Your task to perform on an android device: uninstall "Firefox Browser" Image 0: 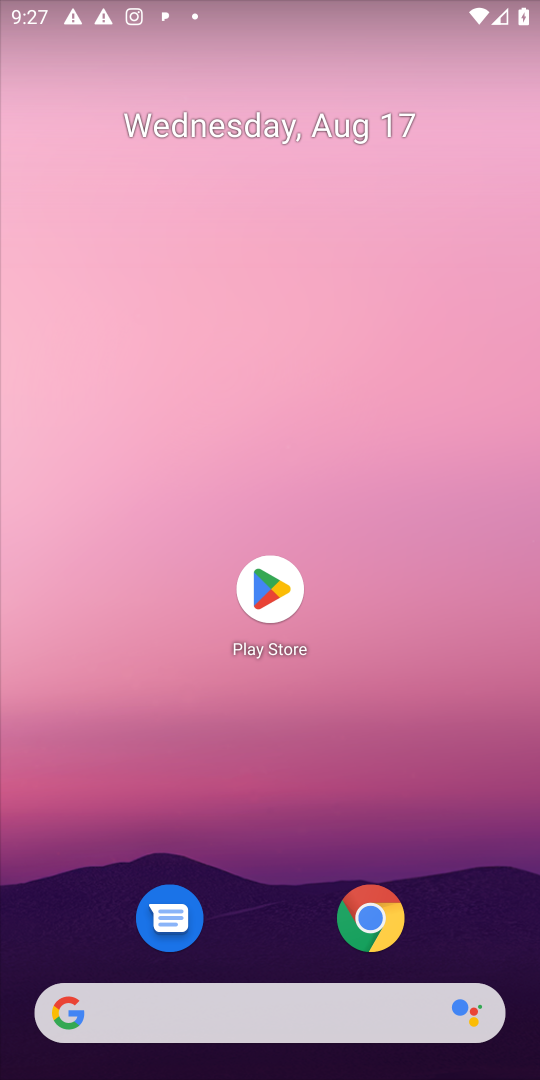
Step 0: click (273, 584)
Your task to perform on an android device: uninstall "Firefox Browser" Image 1: 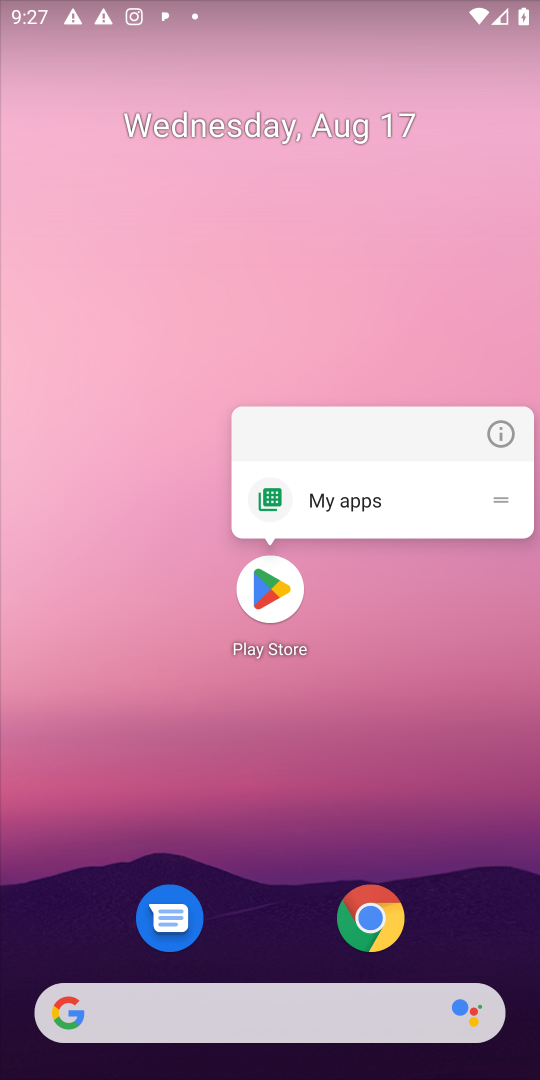
Step 1: click (260, 599)
Your task to perform on an android device: uninstall "Firefox Browser" Image 2: 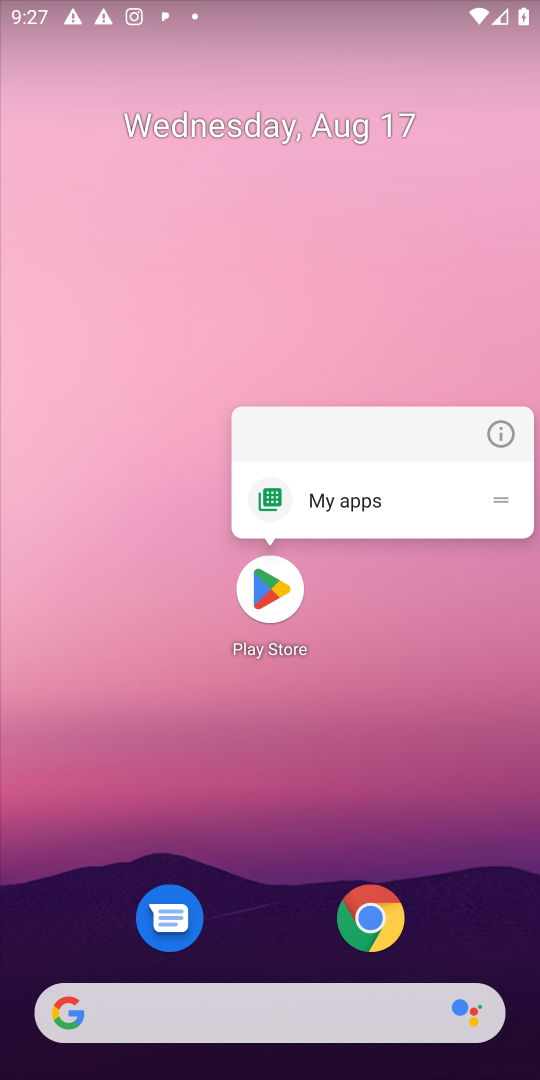
Step 2: click (260, 597)
Your task to perform on an android device: uninstall "Firefox Browser" Image 3: 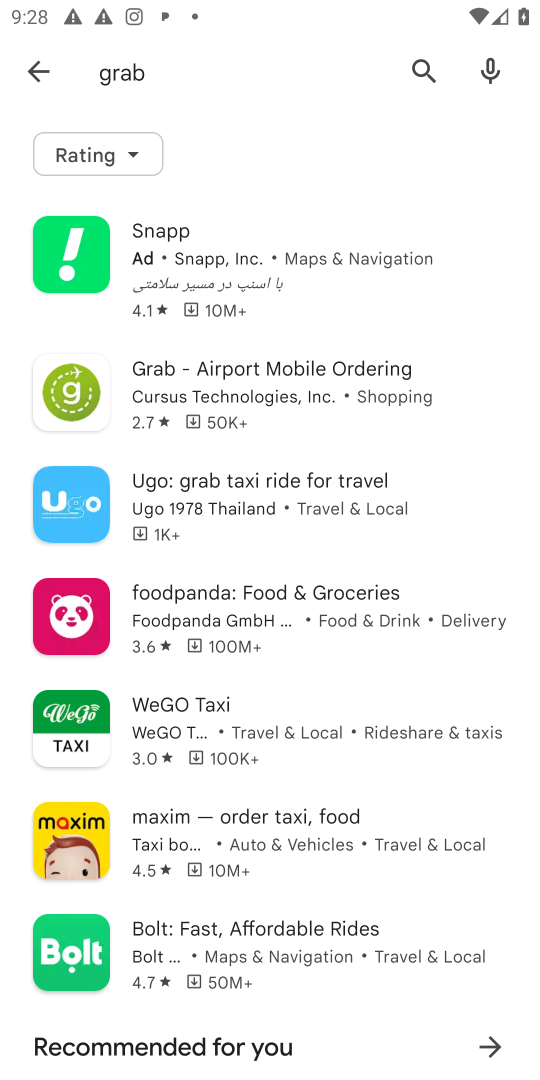
Step 3: click (421, 74)
Your task to perform on an android device: uninstall "Firefox Browser" Image 4: 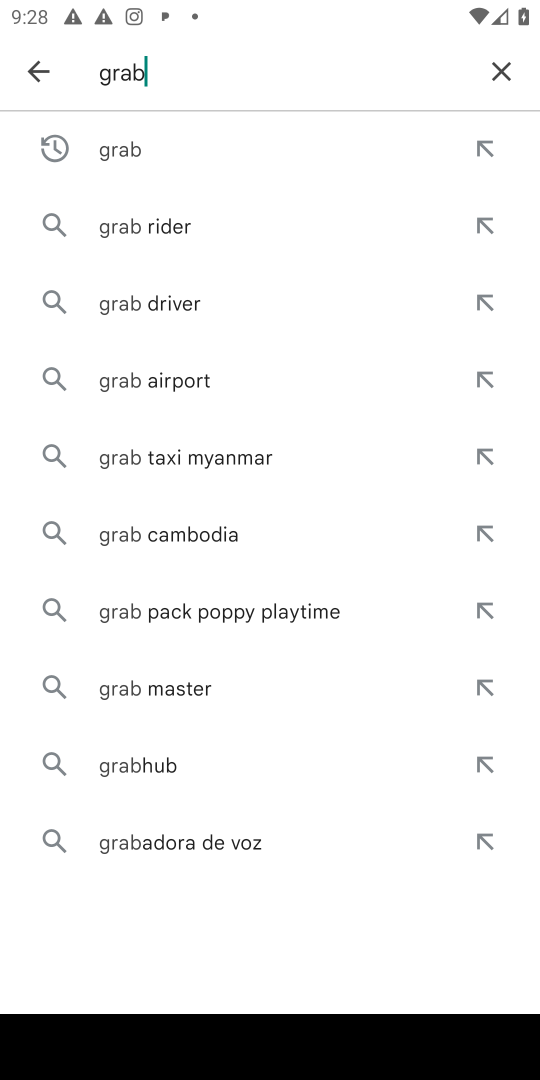
Step 4: click (490, 64)
Your task to perform on an android device: uninstall "Firefox Browser" Image 5: 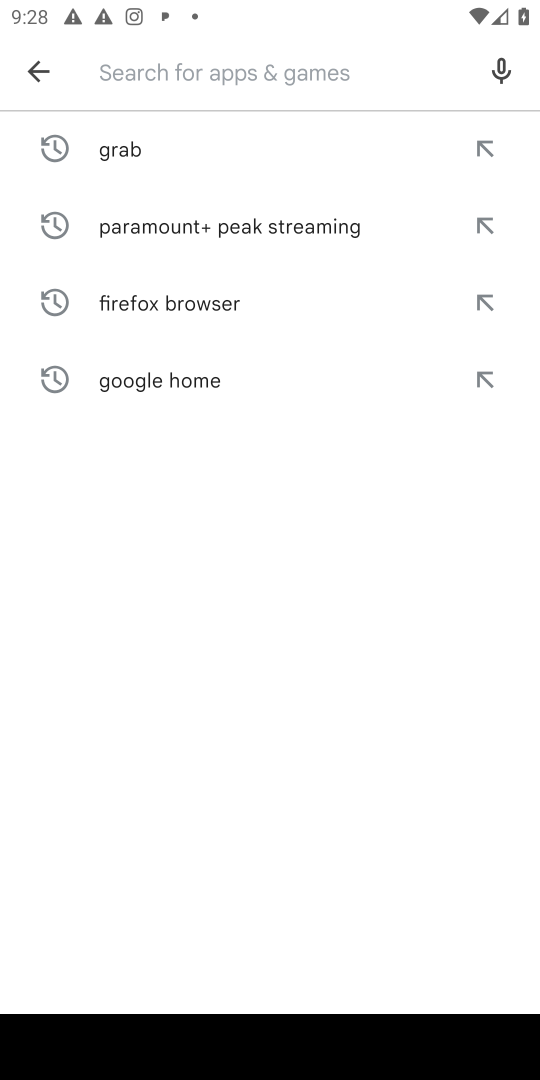
Step 5: type "Firefox Browser"
Your task to perform on an android device: uninstall "Firefox Browser" Image 6: 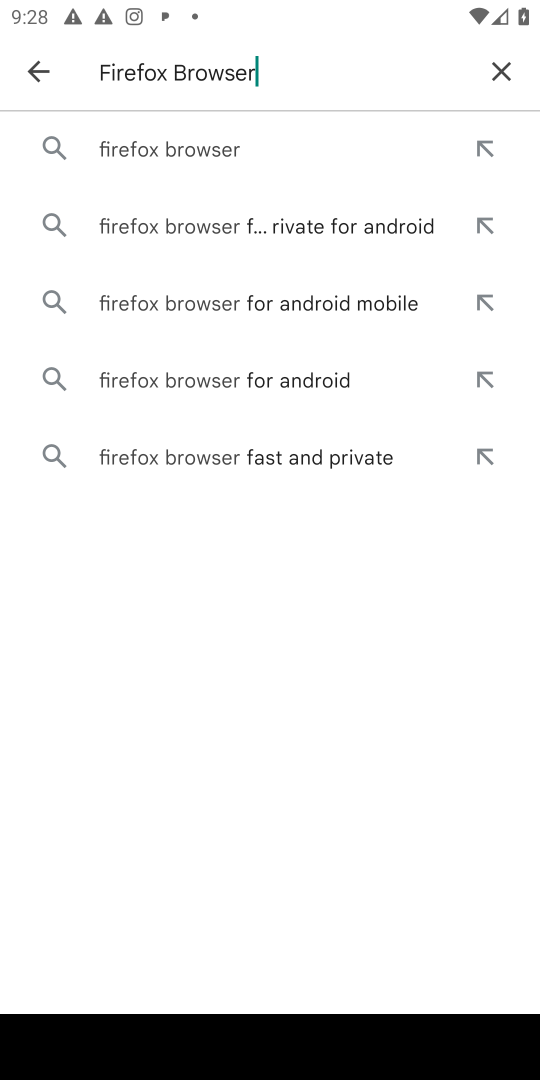
Step 6: click (174, 153)
Your task to perform on an android device: uninstall "Firefox Browser" Image 7: 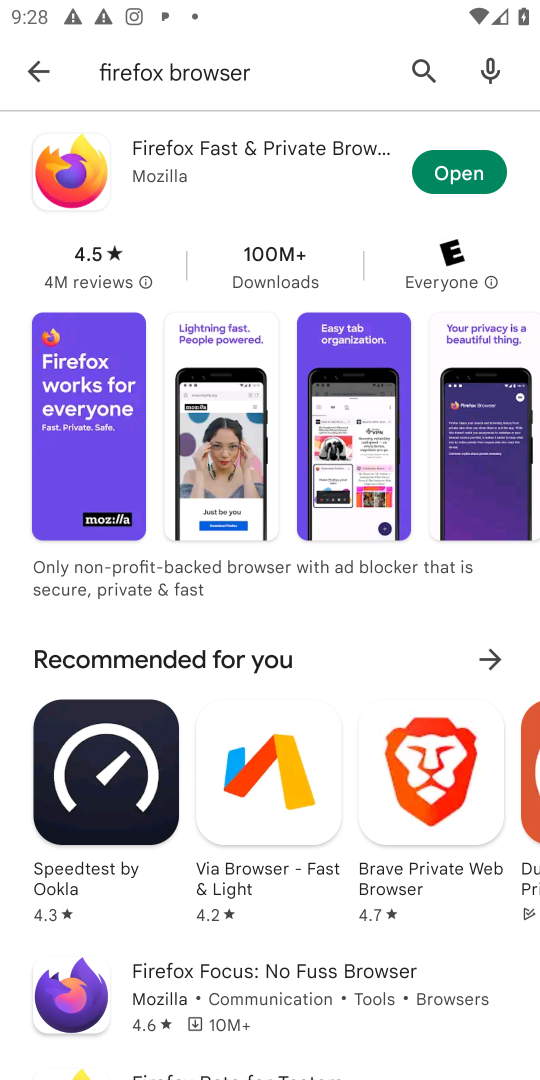
Step 7: click (151, 162)
Your task to perform on an android device: uninstall "Firefox Browser" Image 8: 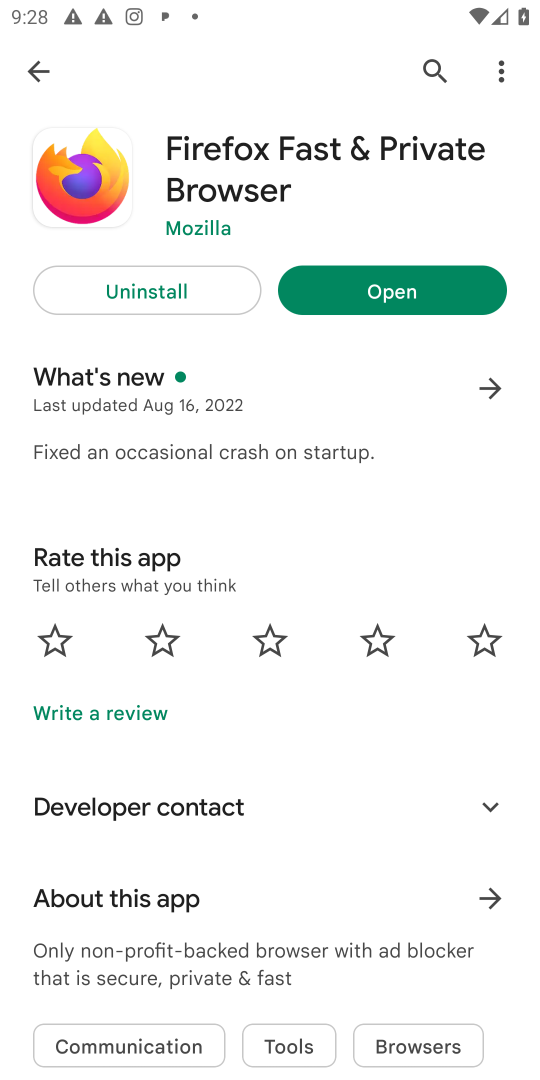
Step 8: click (162, 286)
Your task to perform on an android device: uninstall "Firefox Browser" Image 9: 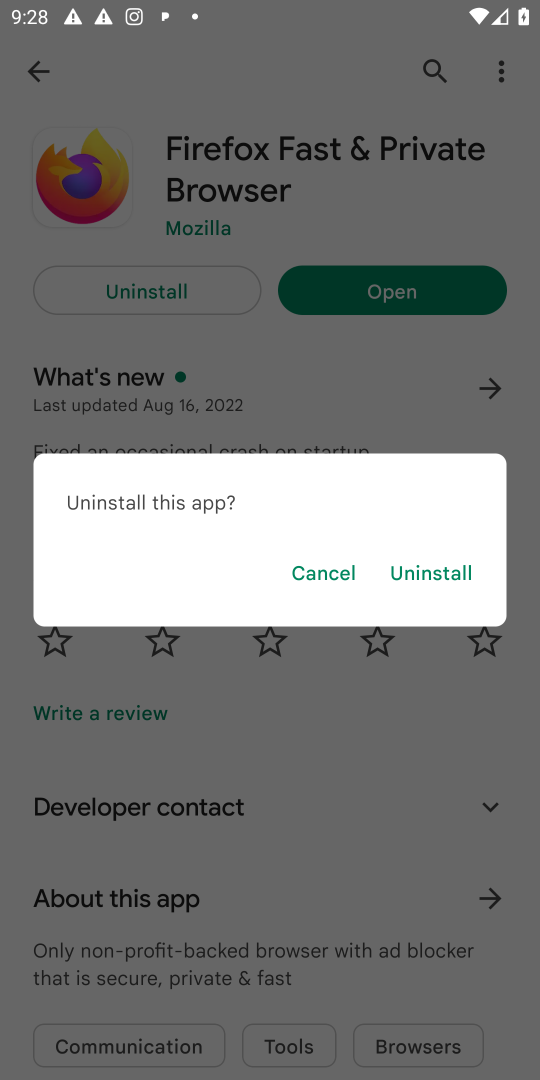
Step 9: click (439, 576)
Your task to perform on an android device: uninstall "Firefox Browser" Image 10: 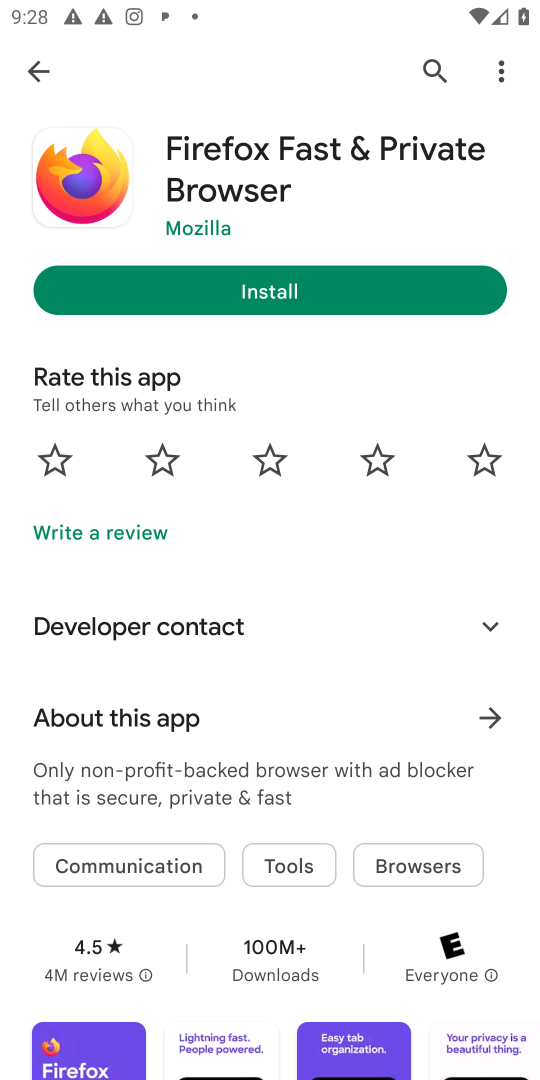
Step 10: task complete